Your task to perform on an android device: open the mobile data screen to see how much data has been used Image 0: 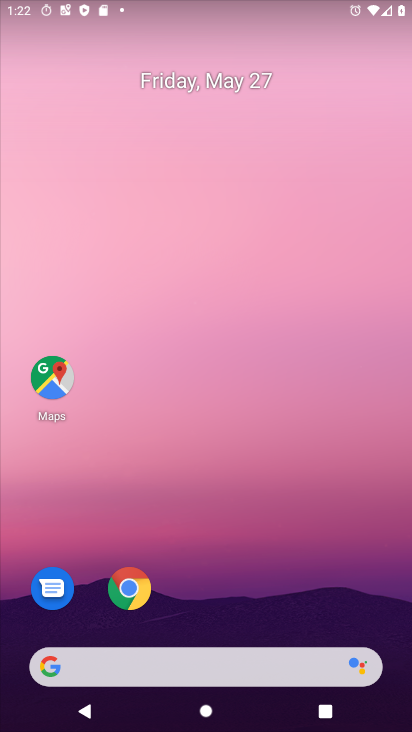
Step 0: press home button
Your task to perform on an android device: open the mobile data screen to see how much data has been used Image 1: 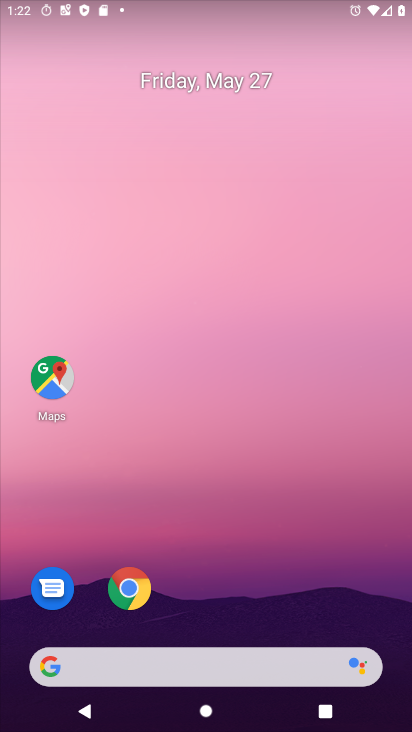
Step 1: drag from (207, 633) to (237, 42)
Your task to perform on an android device: open the mobile data screen to see how much data has been used Image 2: 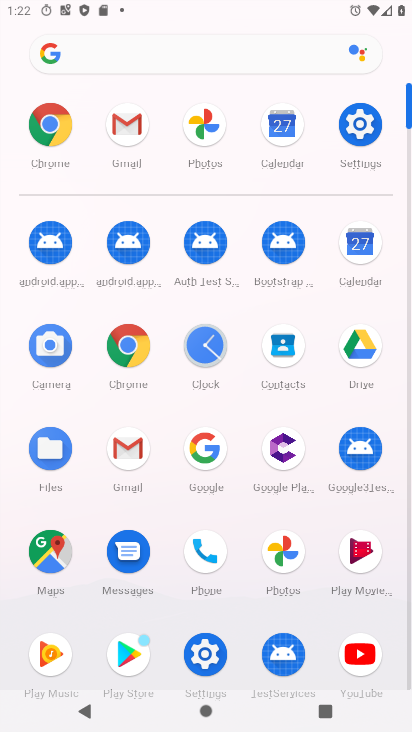
Step 2: click (358, 116)
Your task to perform on an android device: open the mobile data screen to see how much data has been used Image 3: 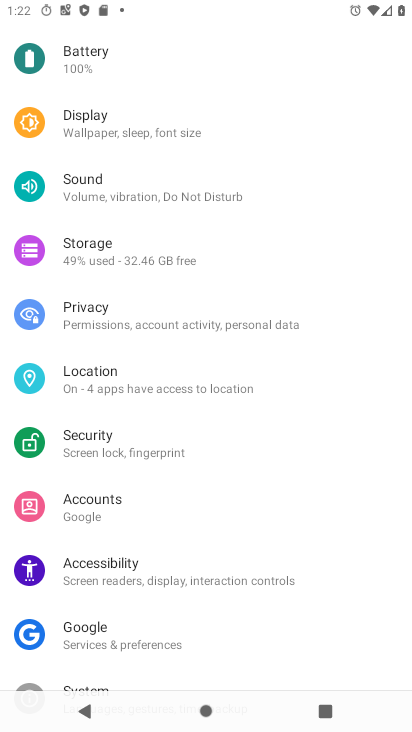
Step 3: drag from (165, 148) to (189, 535)
Your task to perform on an android device: open the mobile data screen to see how much data has been used Image 4: 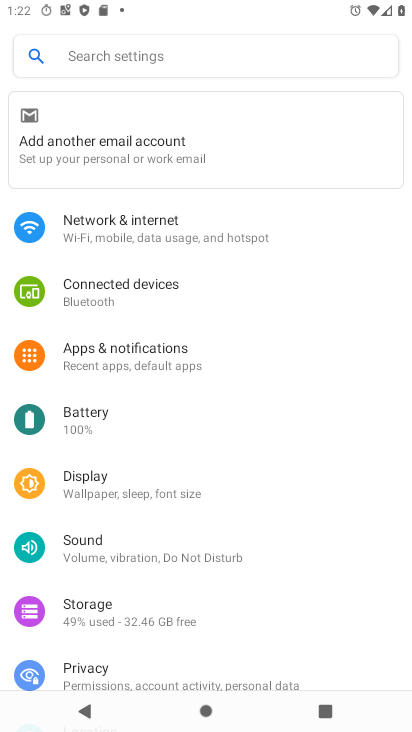
Step 4: click (194, 224)
Your task to perform on an android device: open the mobile data screen to see how much data has been used Image 5: 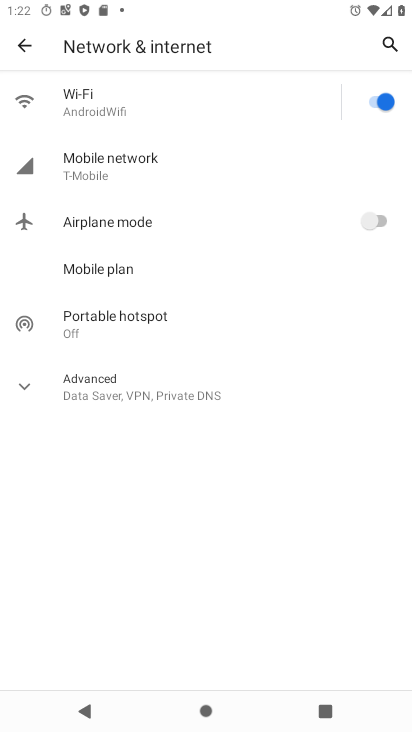
Step 5: click (120, 162)
Your task to perform on an android device: open the mobile data screen to see how much data has been used Image 6: 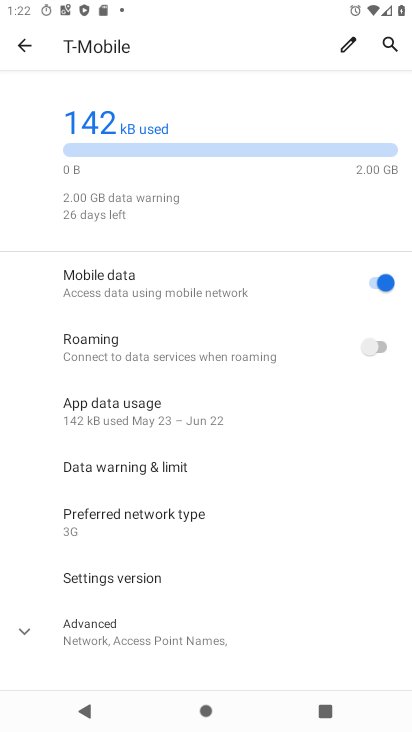
Step 6: click (175, 402)
Your task to perform on an android device: open the mobile data screen to see how much data has been used Image 7: 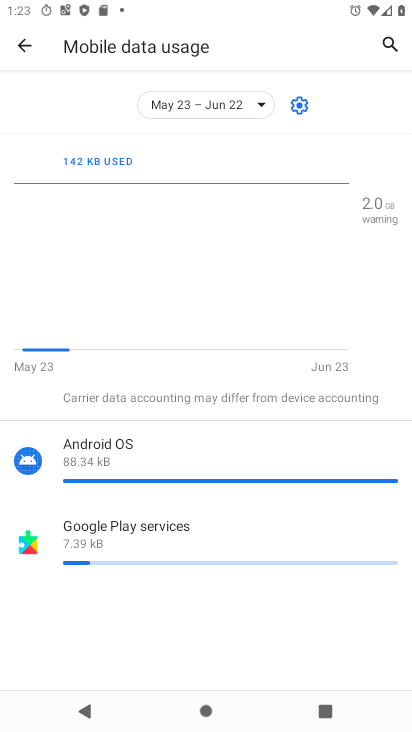
Step 7: task complete